Your task to perform on an android device: open sync settings in chrome Image 0: 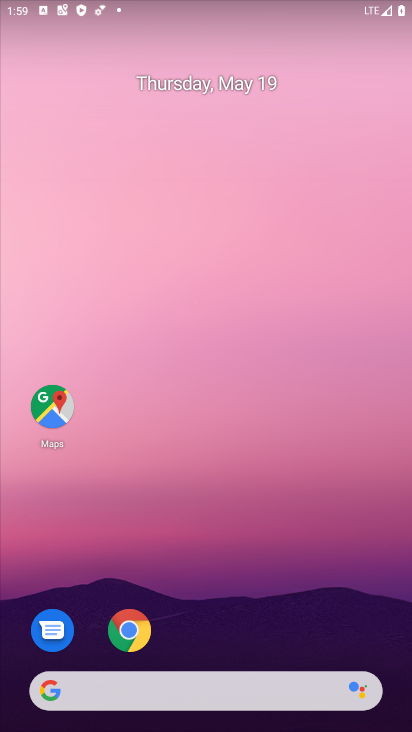
Step 0: click (130, 629)
Your task to perform on an android device: open sync settings in chrome Image 1: 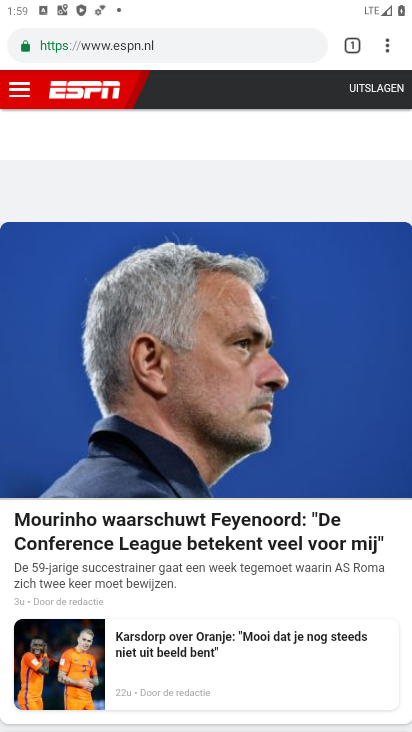
Step 1: click (390, 48)
Your task to perform on an android device: open sync settings in chrome Image 2: 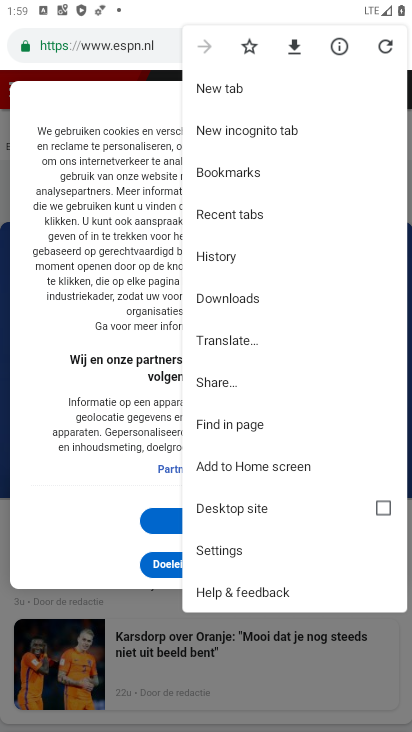
Step 2: click (224, 548)
Your task to perform on an android device: open sync settings in chrome Image 3: 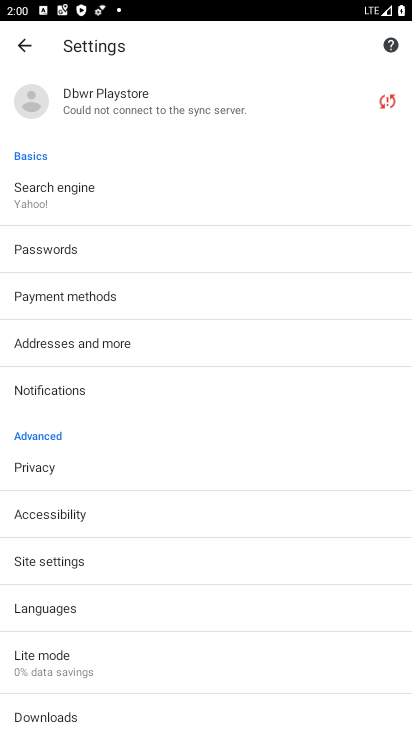
Step 3: click (93, 102)
Your task to perform on an android device: open sync settings in chrome Image 4: 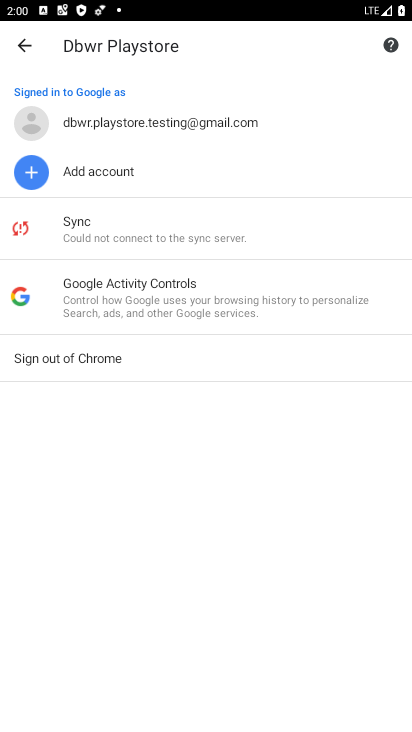
Step 4: click (76, 226)
Your task to perform on an android device: open sync settings in chrome Image 5: 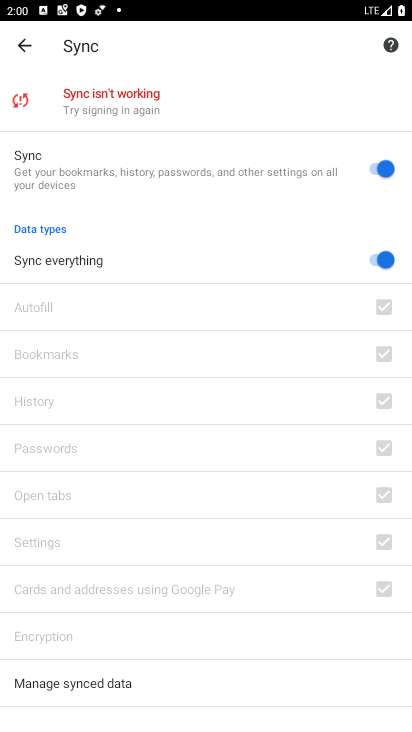
Step 5: task complete